Your task to perform on an android device: Open CNN.com Image 0: 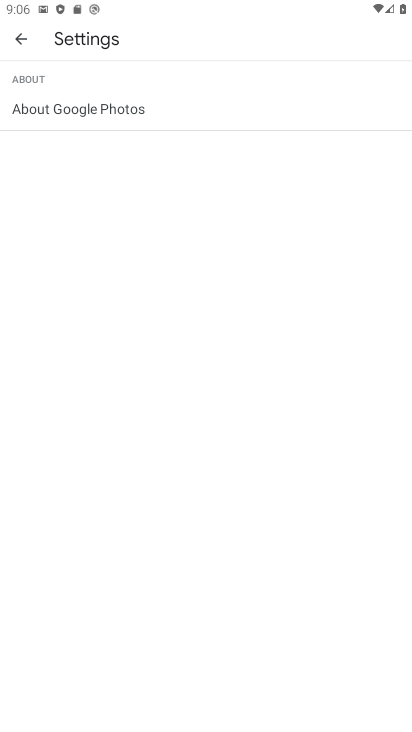
Step 0: press home button
Your task to perform on an android device: Open CNN.com Image 1: 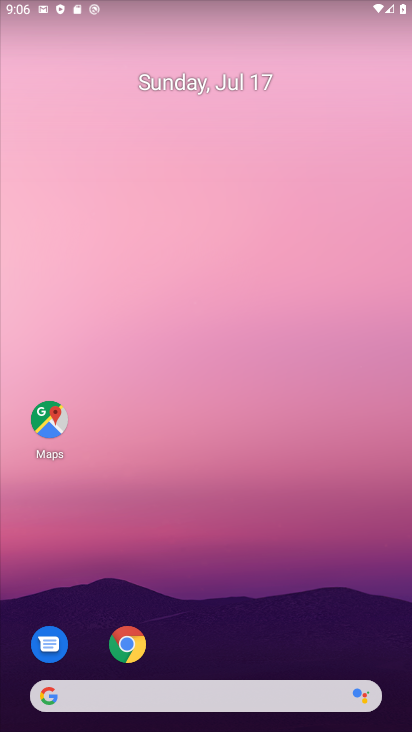
Step 1: drag from (228, 665) to (230, 94)
Your task to perform on an android device: Open CNN.com Image 2: 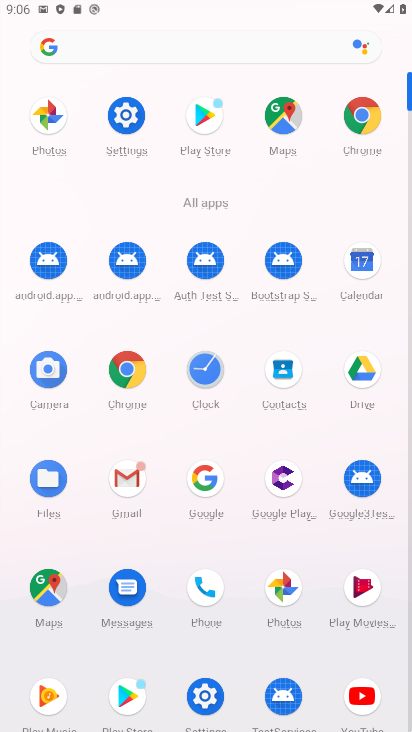
Step 2: click (130, 380)
Your task to perform on an android device: Open CNN.com Image 3: 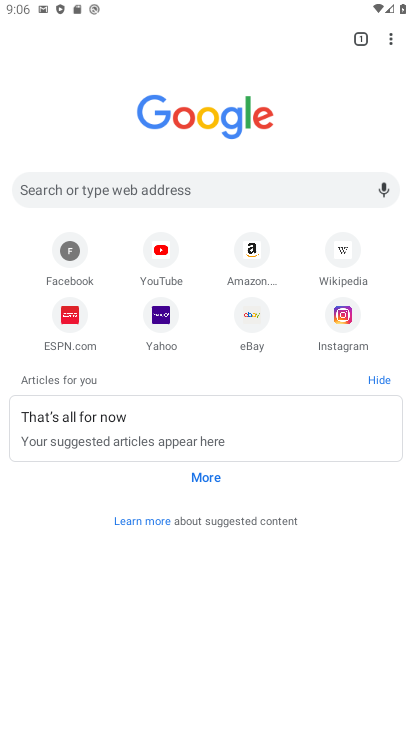
Step 3: click (126, 181)
Your task to perform on an android device: Open CNN.com Image 4: 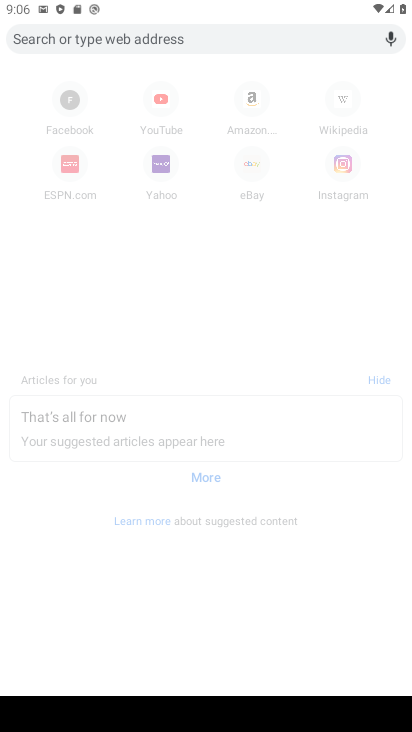
Step 4: type "CNN.com"
Your task to perform on an android device: Open CNN.com Image 5: 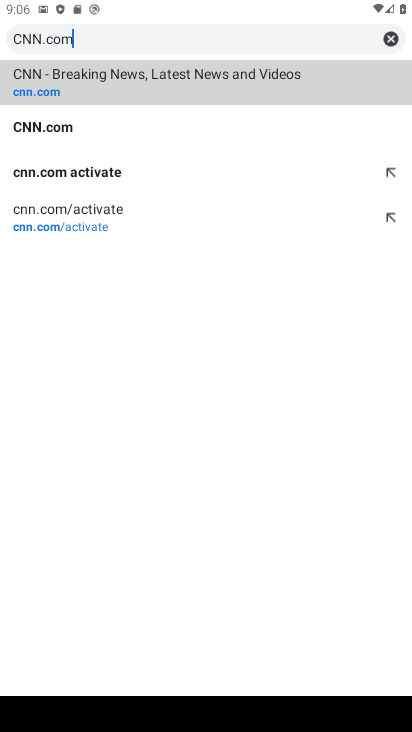
Step 5: type ""
Your task to perform on an android device: Open CNN.com Image 6: 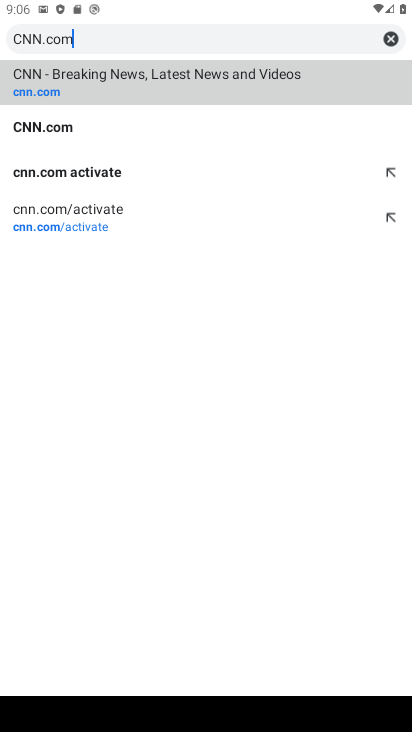
Step 6: click (122, 94)
Your task to perform on an android device: Open CNN.com Image 7: 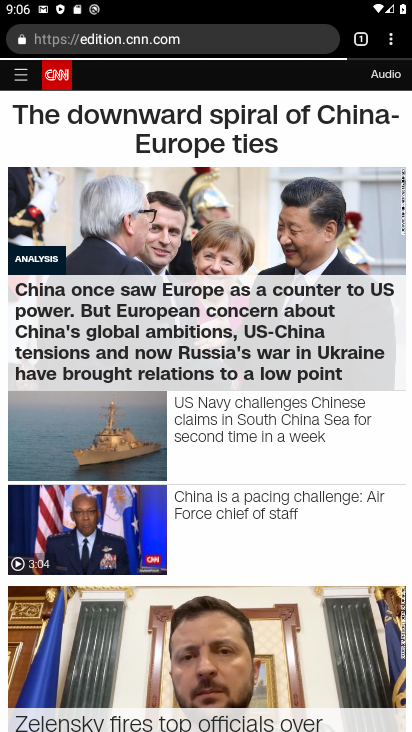
Step 7: task complete